Your task to perform on an android device: Search for sushi restaurants on Maps Image 0: 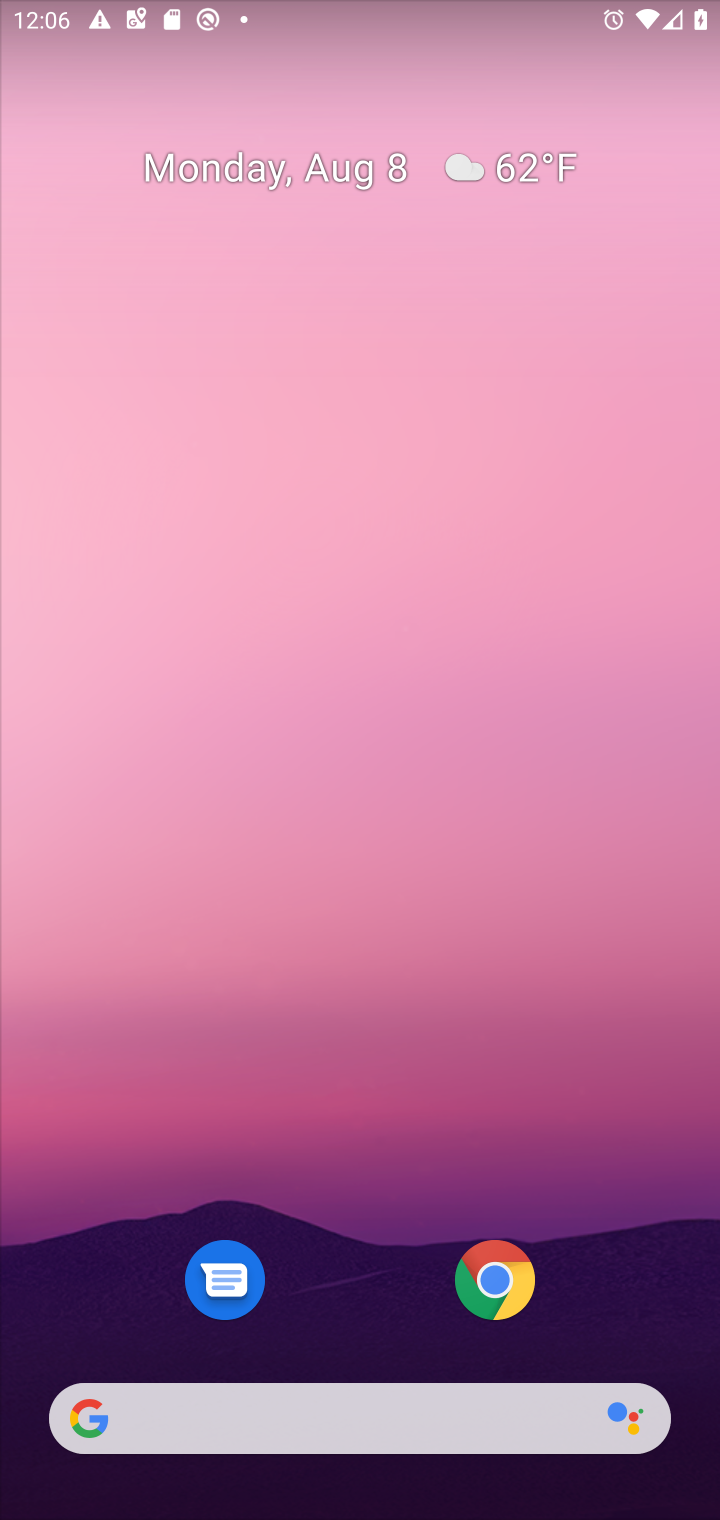
Step 0: drag from (334, 1357) to (244, 248)
Your task to perform on an android device: Search for sushi restaurants on Maps Image 1: 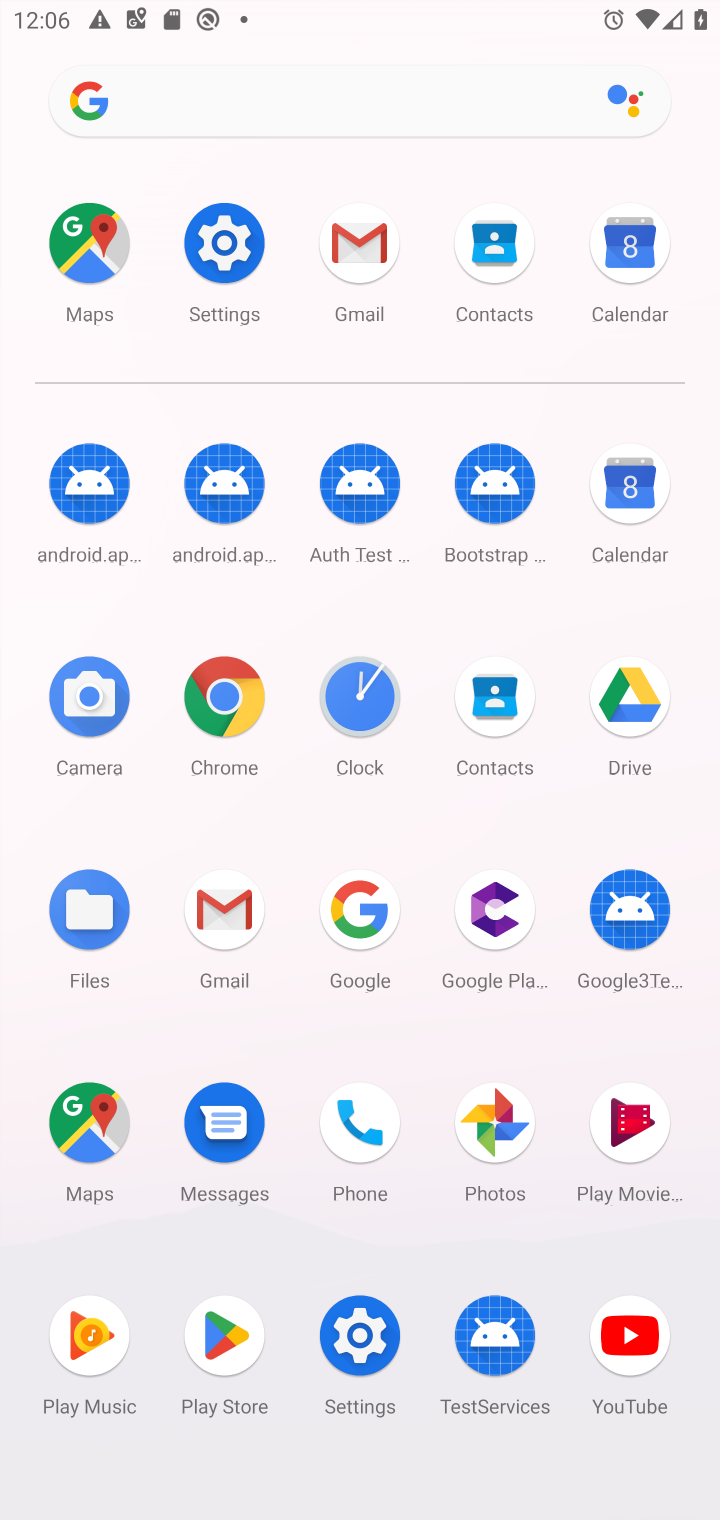
Step 1: click (81, 1104)
Your task to perform on an android device: Search for sushi restaurants on Maps Image 2: 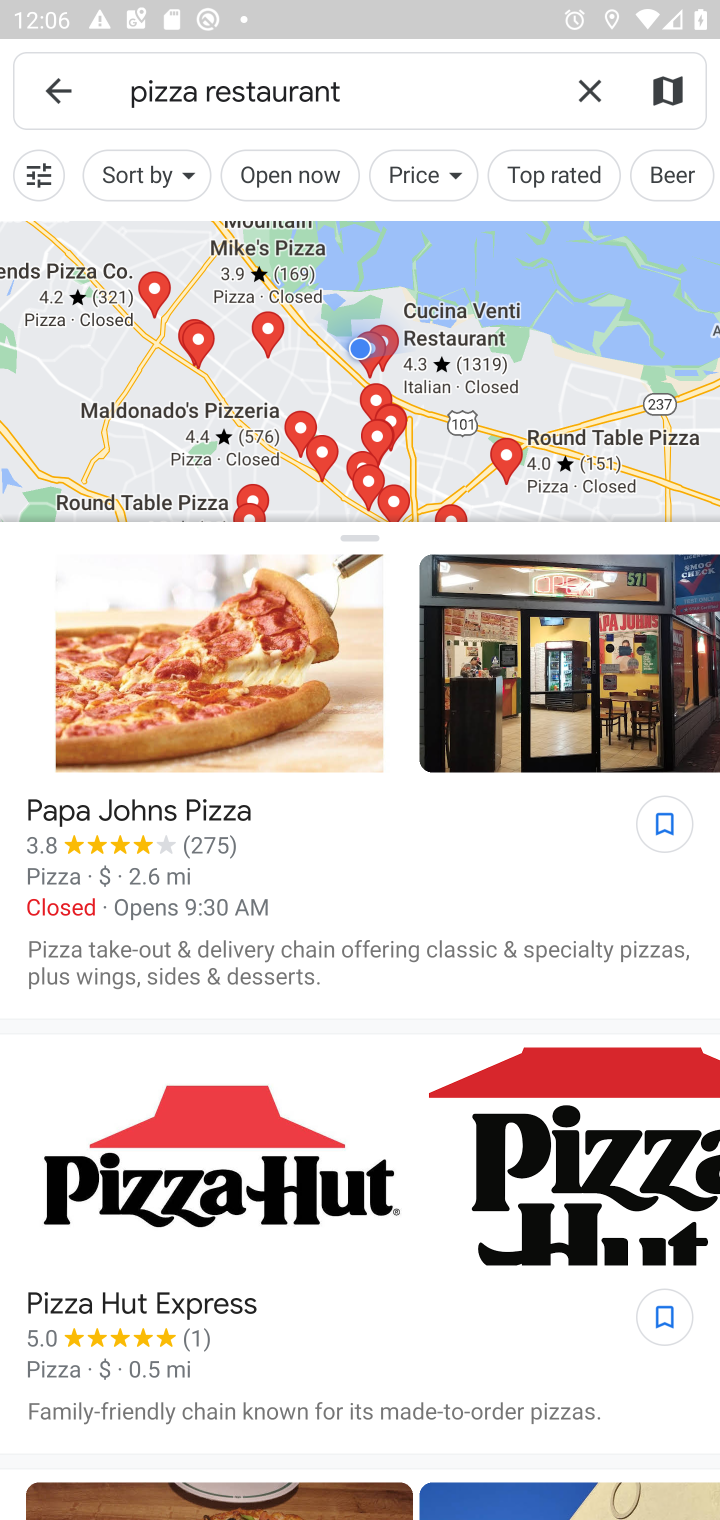
Step 2: click (590, 80)
Your task to perform on an android device: Search for sushi restaurants on Maps Image 3: 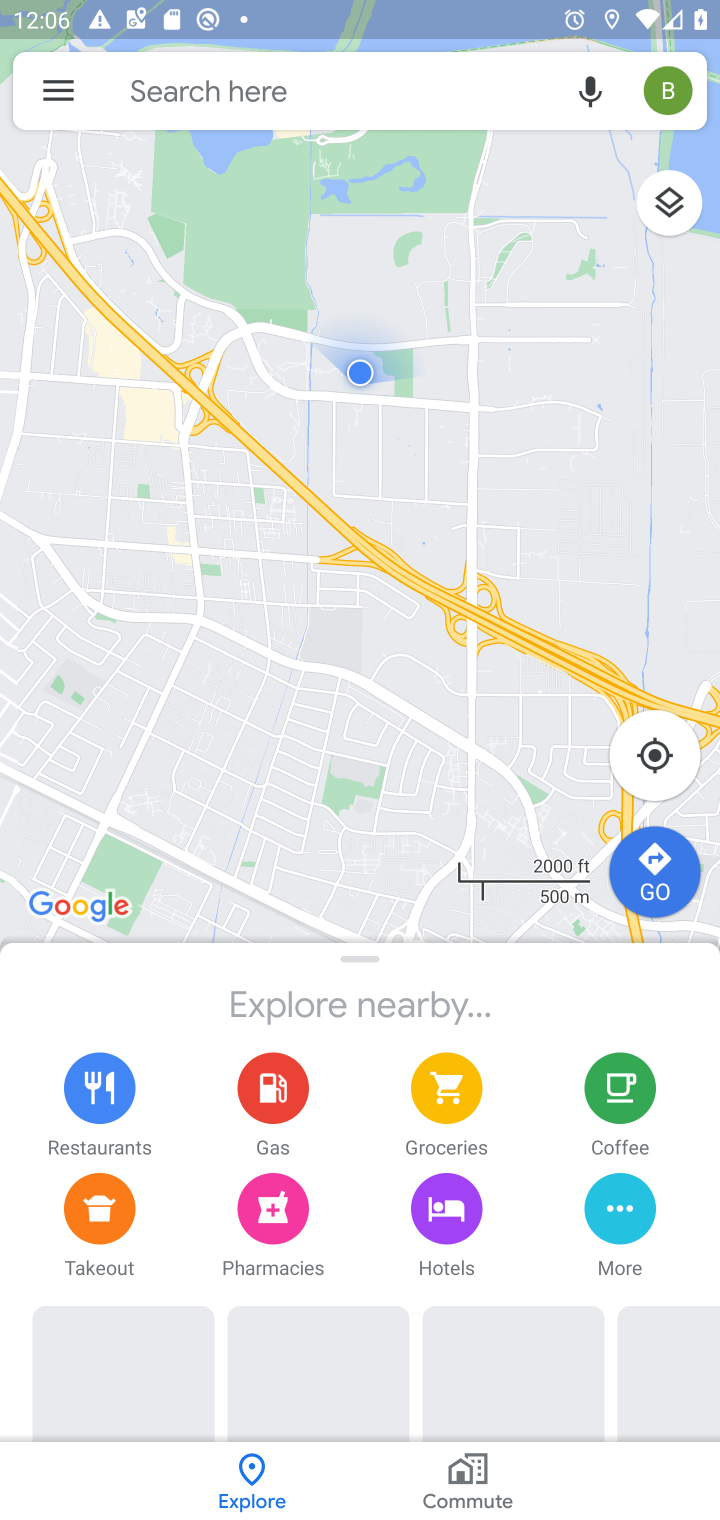
Step 3: click (391, 90)
Your task to perform on an android device: Search for sushi restaurants on Maps Image 4: 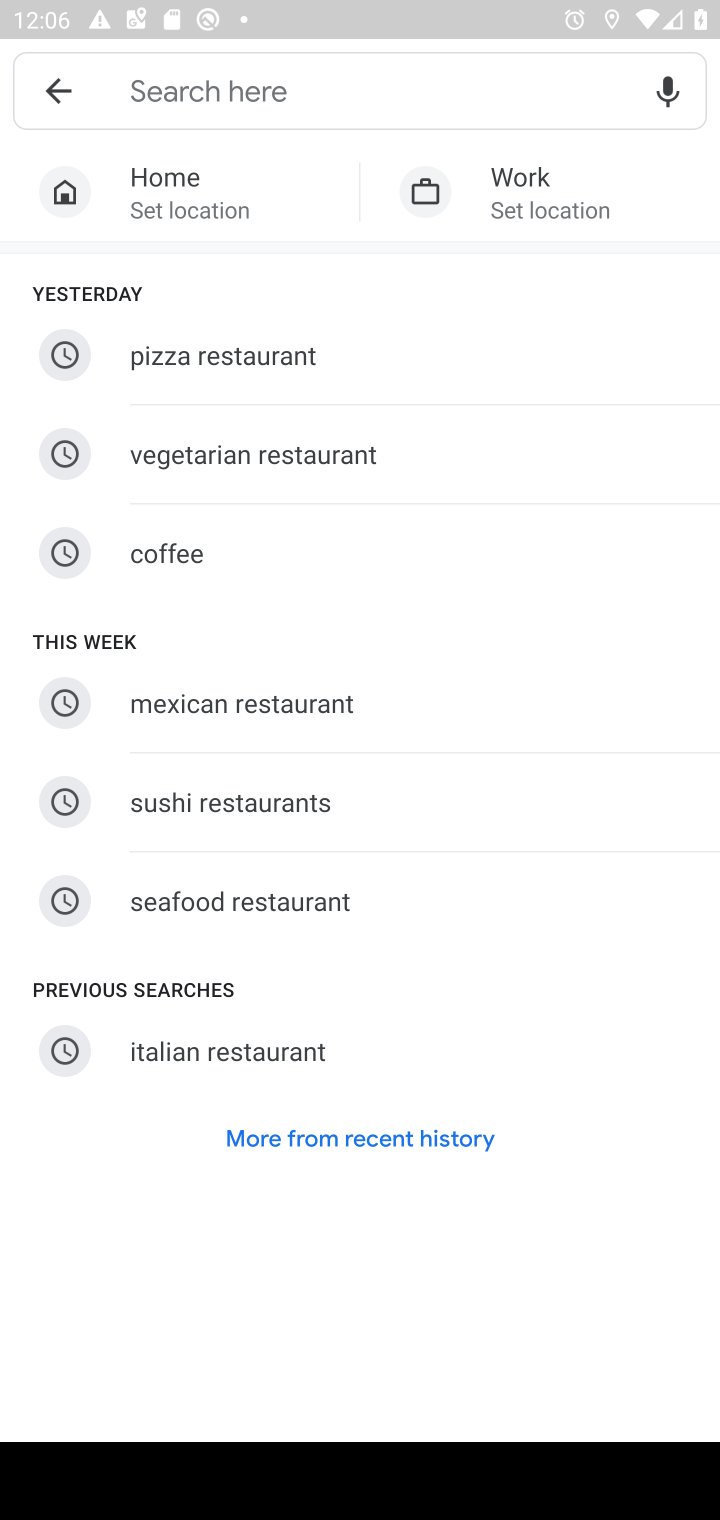
Step 4: type "sushi restaurants"
Your task to perform on an android device: Search for sushi restaurants on Maps Image 5: 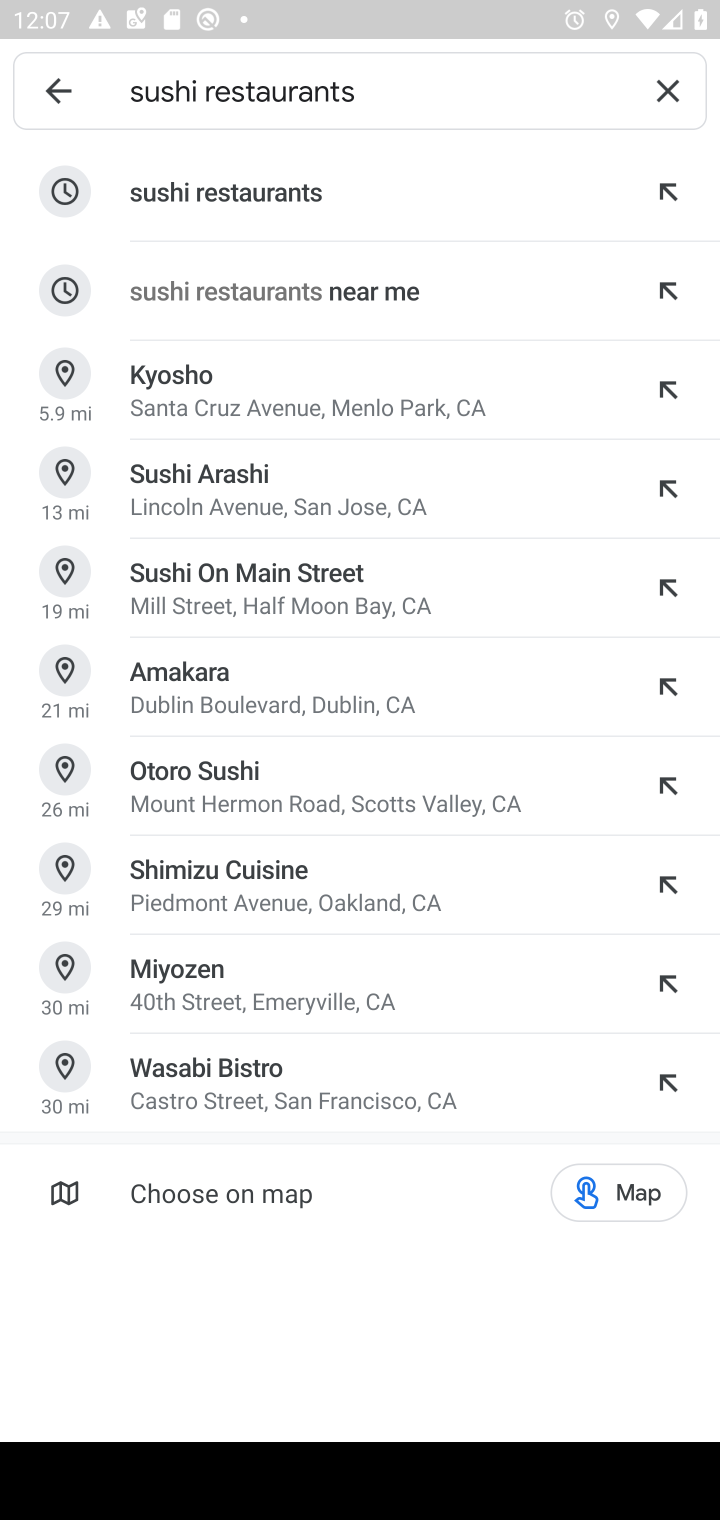
Step 5: click (280, 185)
Your task to perform on an android device: Search for sushi restaurants on Maps Image 6: 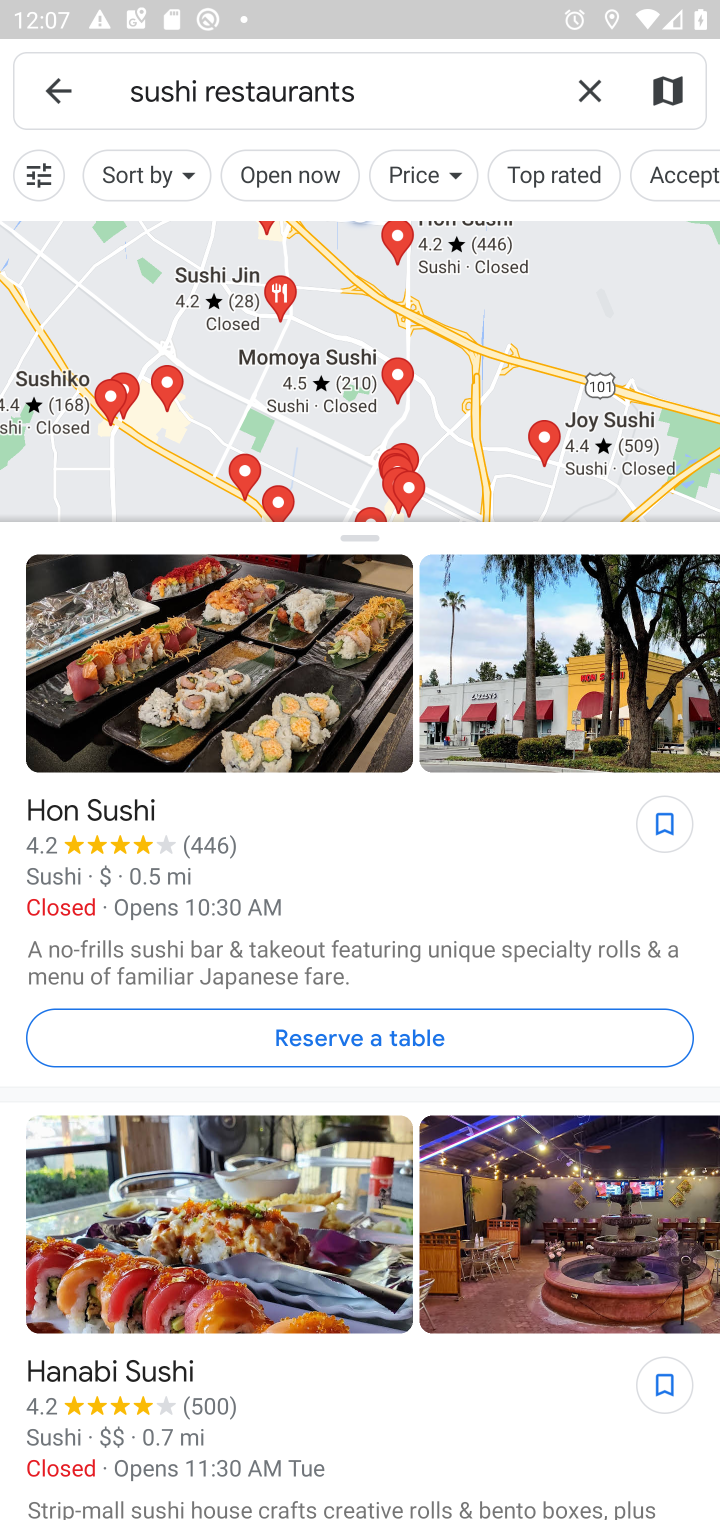
Step 6: task complete